Your task to perform on an android device: What is the news today? Image 0: 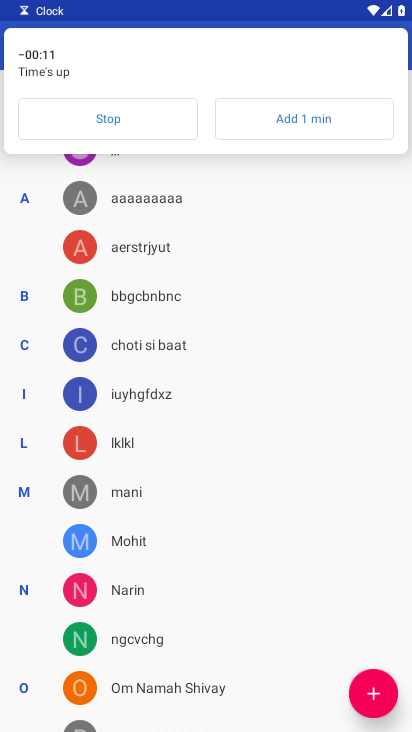
Step 0: press home button
Your task to perform on an android device: What is the news today? Image 1: 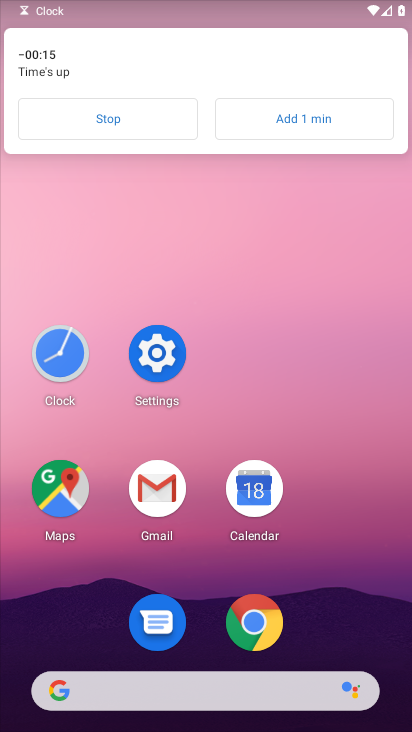
Step 1: click (78, 127)
Your task to perform on an android device: What is the news today? Image 2: 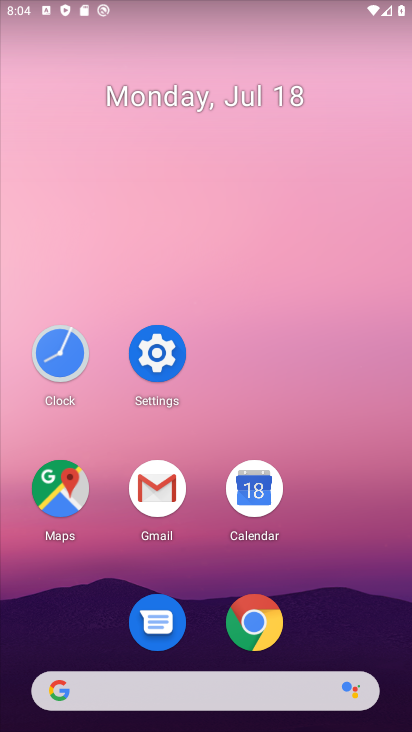
Step 2: drag from (0, 203) to (404, 235)
Your task to perform on an android device: What is the news today? Image 3: 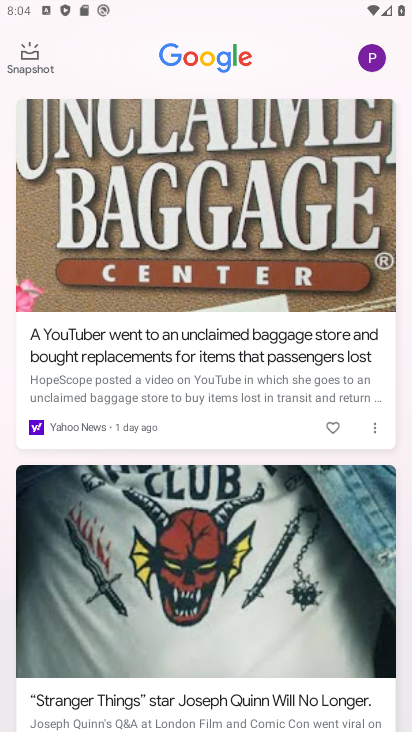
Step 3: click (217, 287)
Your task to perform on an android device: What is the news today? Image 4: 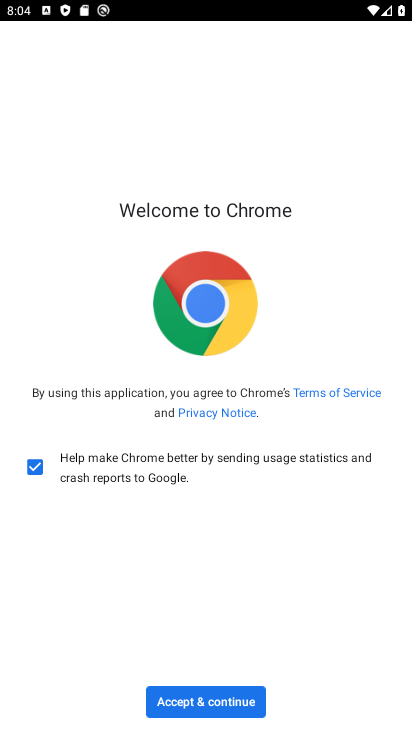
Step 4: task complete